Your task to perform on an android device: When is my next appointment? Image 0: 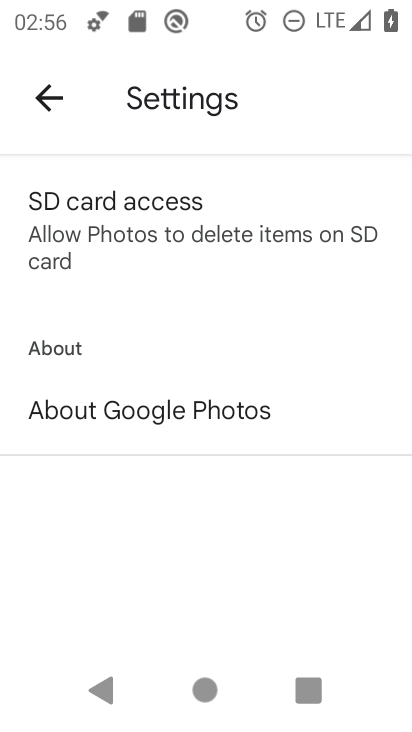
Step 0: click (57, 102)
Your task to perform on an android device: When is my next appointment? Image 1: 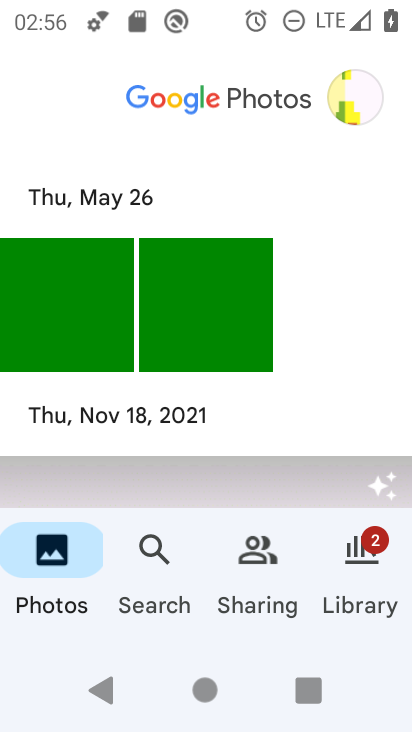
Step 1: press home button
Your task to perform on an android device: When is my next appointment? Image 2: 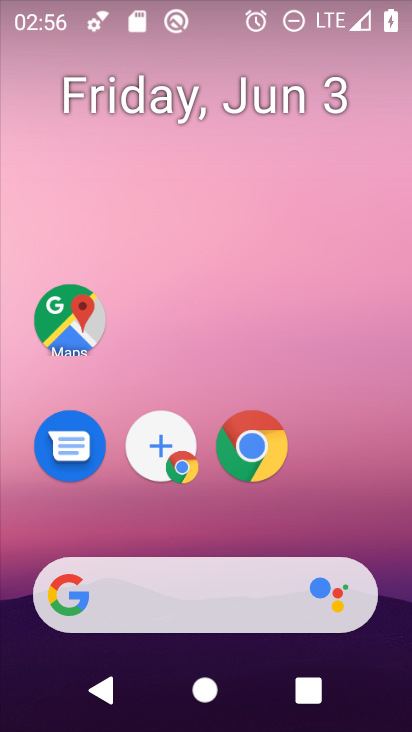
Step 2: drag from (236, 659) to (174, 15)
Your task to perform on an android device: When is my next appointment? Image 3: 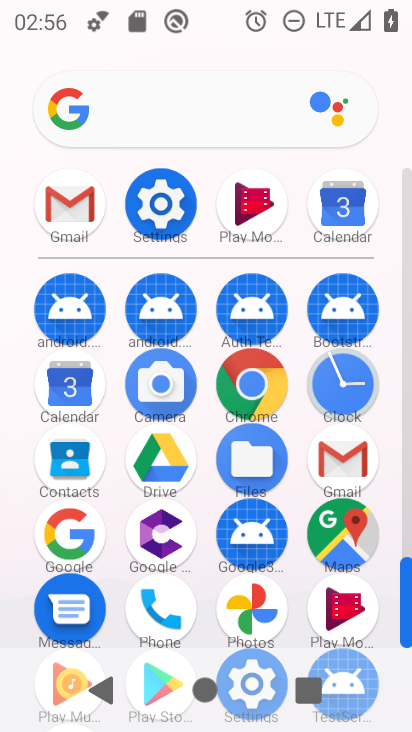
Step 3: click (82, 392)
Your task to perform on an android device: When is my next appointment? Image 4: 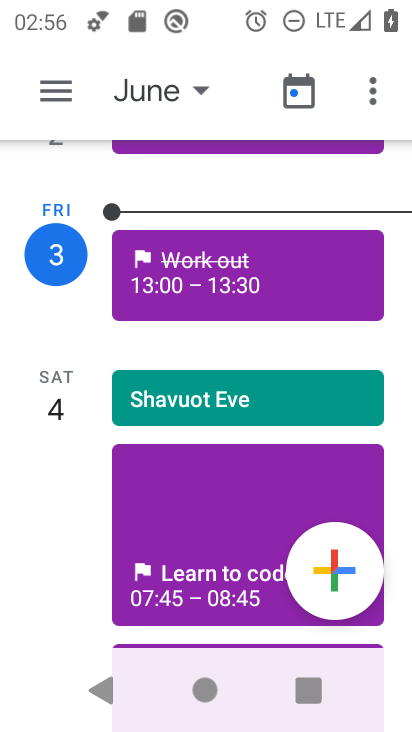
Step 4: task complete